Your task to perform on an android device: Go to display settings Image 0: 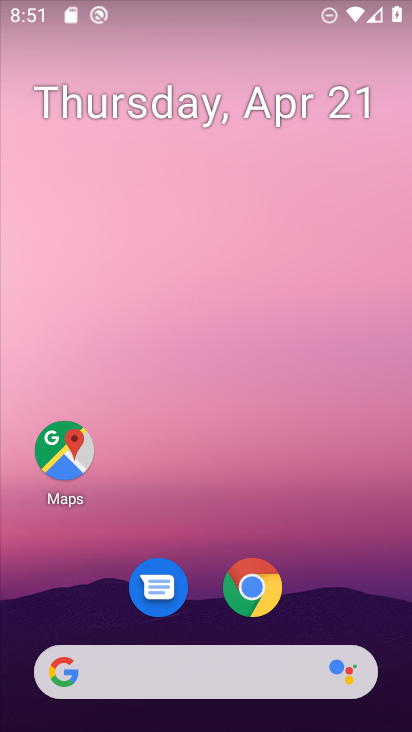
Step 0: drag from (270, 493) to (133, 134)
Your task to perform on an android device: Go to display settings Image 1: 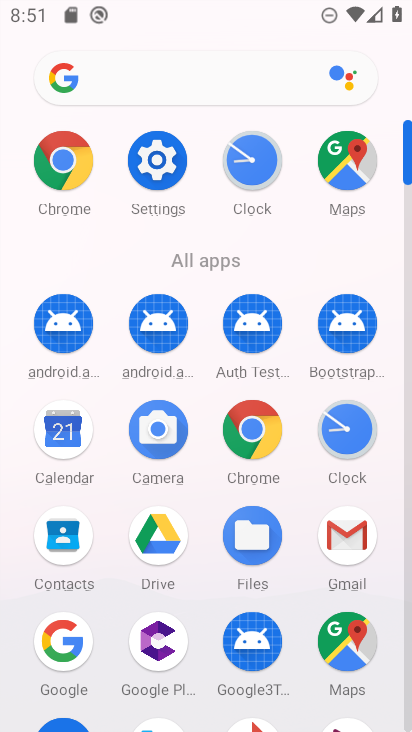
Step 1: click (159, 168)
Your task to perform on an android device: Go to display settings Image 2: 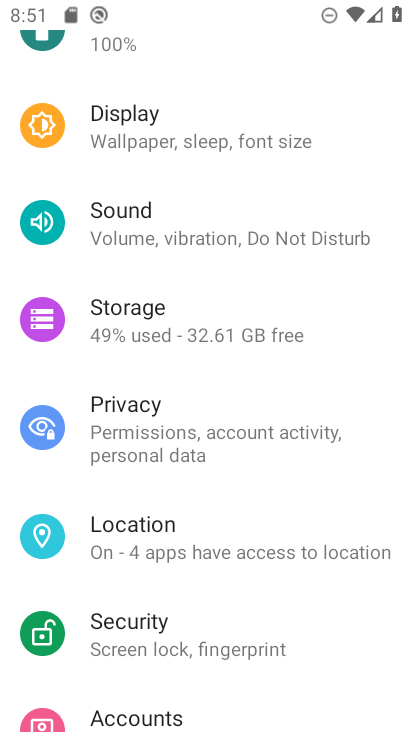
Step 2: click (150, 132)
Your task to perform on an android device: Go to display settings Image 3: 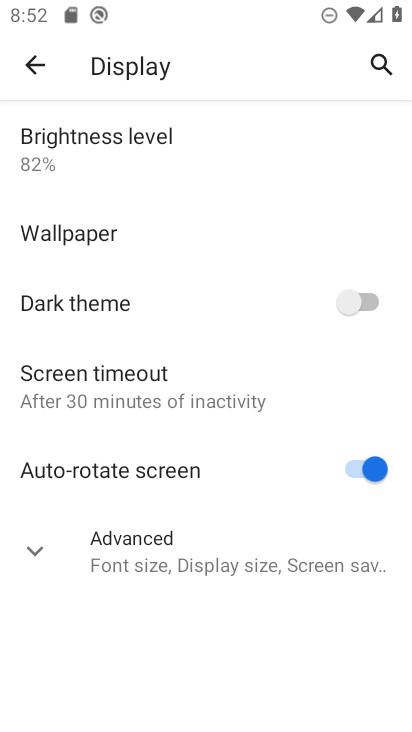
Step 3: task complete